Your task to perform on an android device: Go to notification settings Image 0: 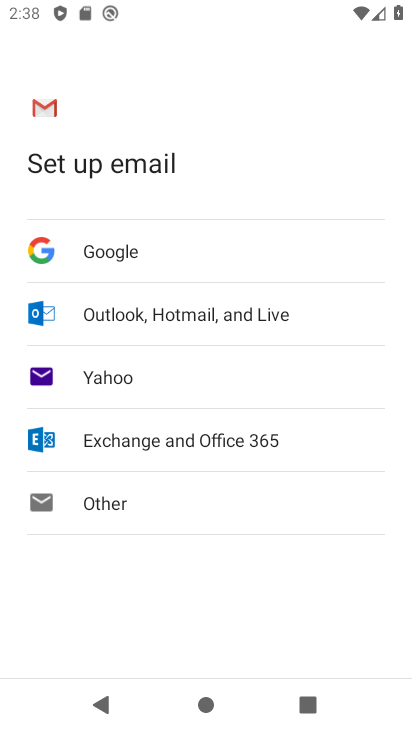
Step 0: press home button
Your task to perform on an android device: Go to notification settings Image 1: 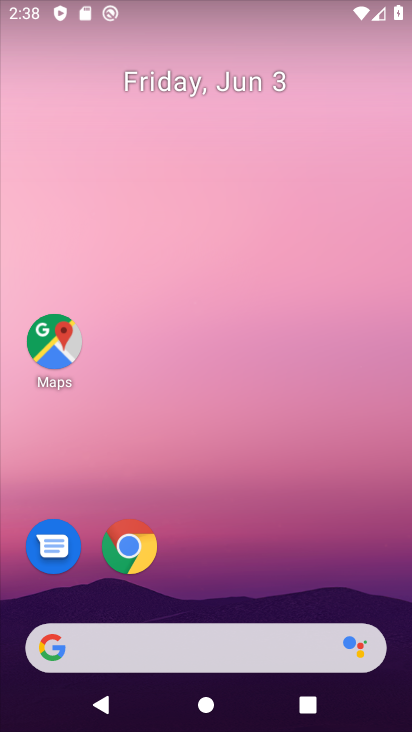
Step 1: drag from (285, 515) to (232, 6)
Your task to perform on an android device: Go to notification settings Image 2: 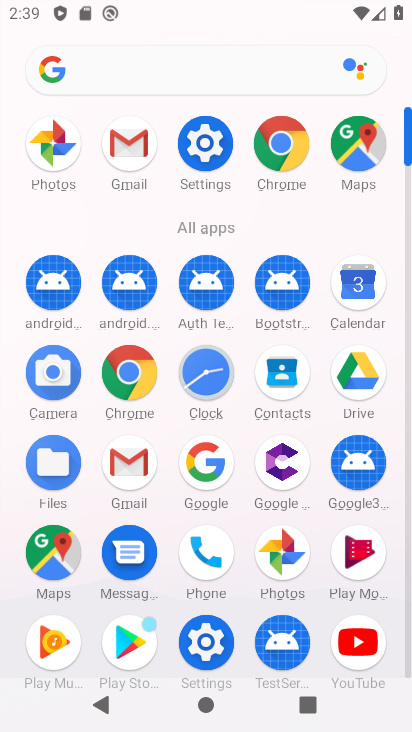
Step 2: click (210, 153)
Your task to perform on an android device: Go to notification settings Image 3: 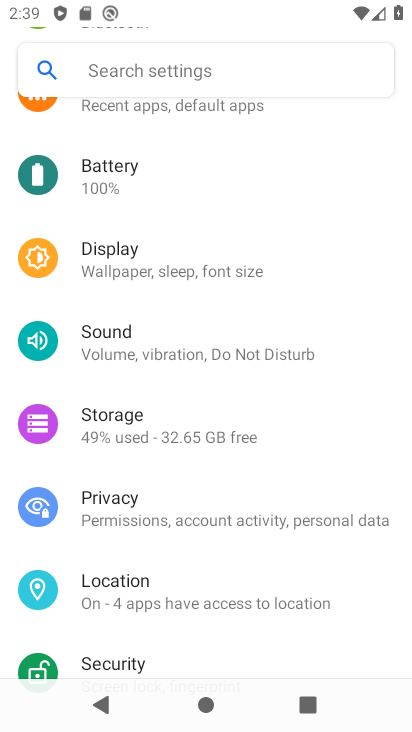
Step 3: drag from (147, 259) to (190, 524)
Your task to perform on an android device: Go to notification settings Image 4: 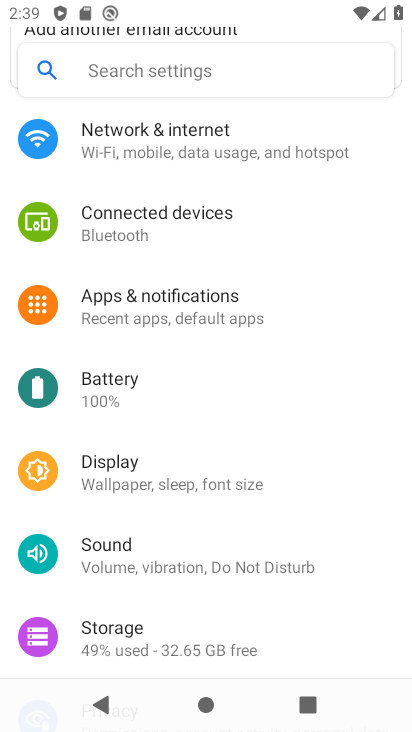
Step 4: click (189, 309)
Your task to perform on an android device: Go to notification settings Image 5: 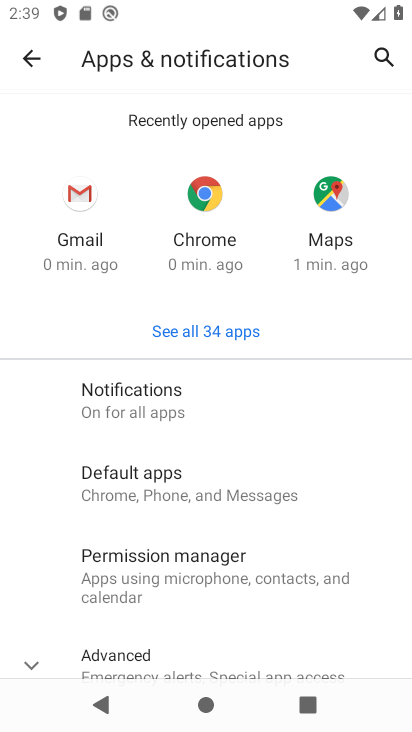
Step 5: click (147, 389)
Your task to perform on an android device: Go to notification settings Image 6: 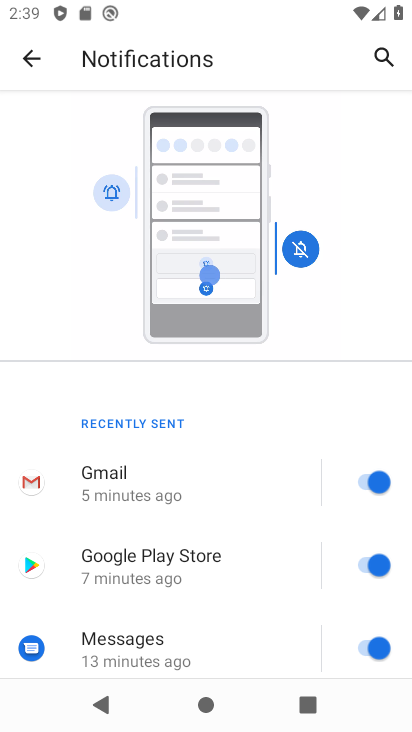
Step 6: task complete